Your task to perform on an android device: change the upload size in google photos Image 0: 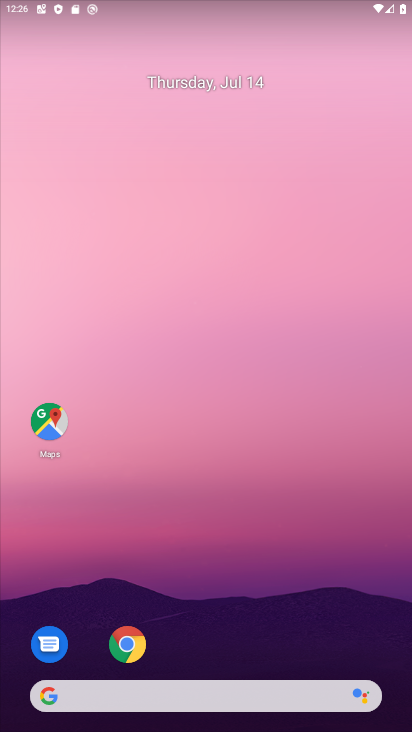
Step 0: drag from (393, 536) to (410, 390)
Your task to perform on an android device: change the upload size in google photos Image 1: 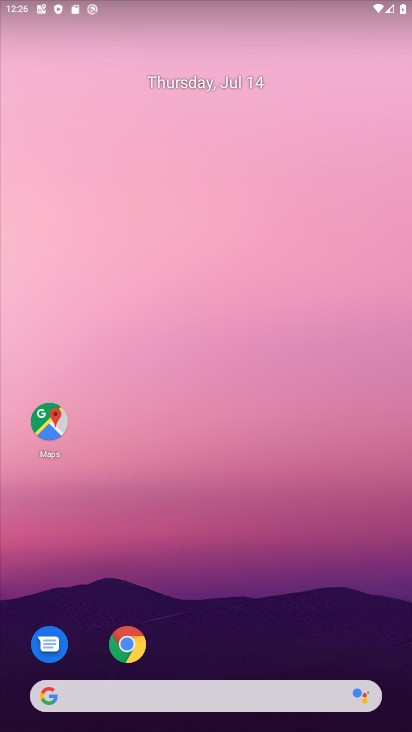
Step 1: drag from (251, 691) to (334, 0)
Your task to perform on an android device: change the upload size in google photos Image 2: 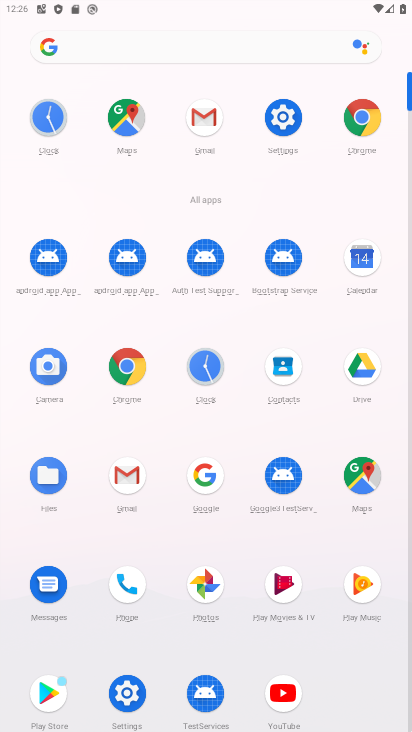
Step 2: click (198, 584)
Your task to perform on an android device: change the upload size in google photos Image 3: 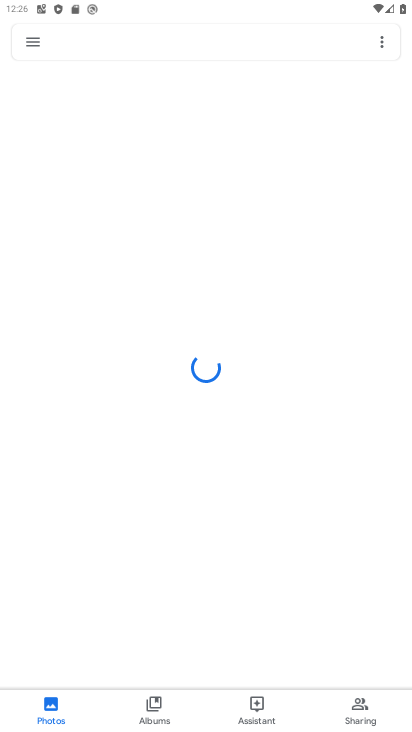
Step 3: click (22, 39)
Your task to perform on an android device: change the upload size in google photos Image 4: 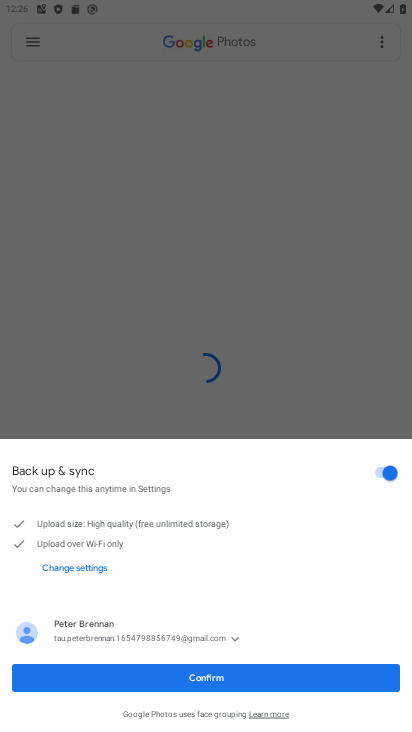
Step 4: click (119, 683)
Your task to perform on an android device: change the upload size in google photos Image 5: 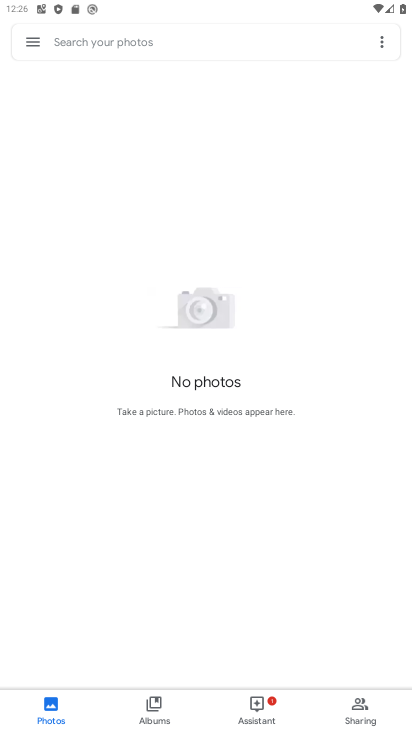
Step 5: click (25, 39)
Your task to perform on an android device: change the upload size in google photos Image 6: 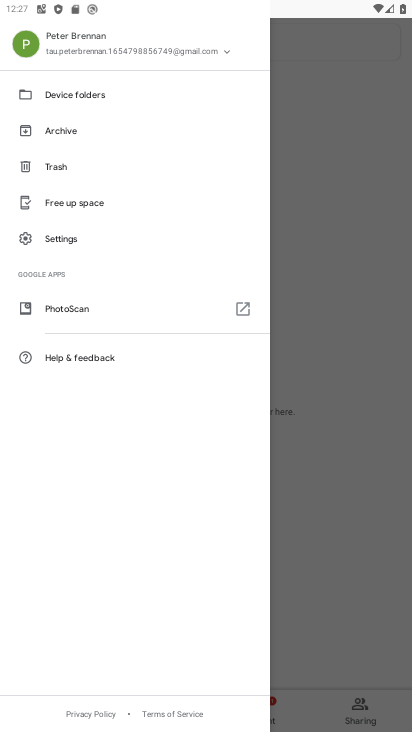
Step 6: click (70, 240)
Your task to perform on an android device: change the upload size in google photos Image 7: 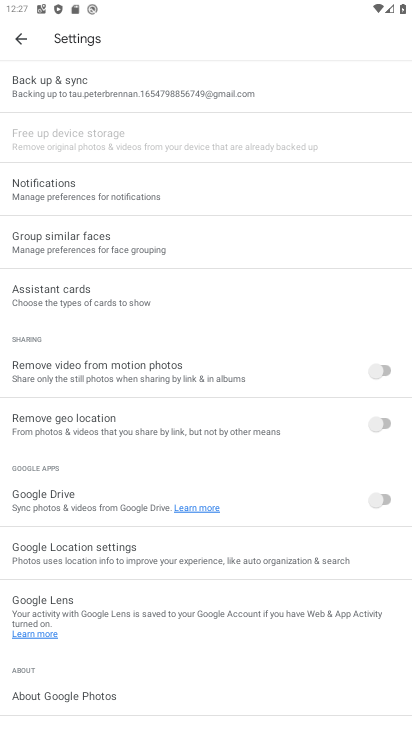
Step 7: click (61, 72)
Your task to perform on an android device: change the upload size in google photos Image 8: 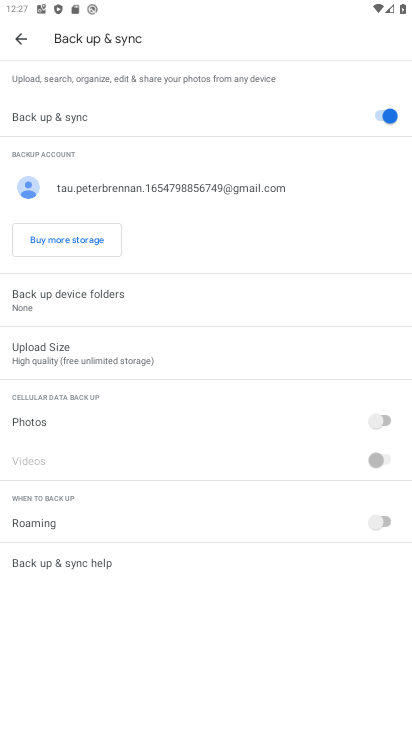
Step 8: click (80, 345)
Your task to perform on an android device: change the upload size in google photos Image 9: 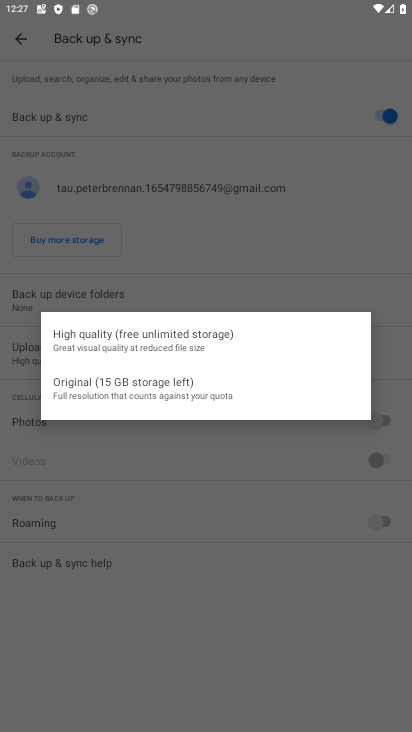
Step 9: click (96, 380)
Your task to perform on an android device: change the upload size in google photos Image 10: 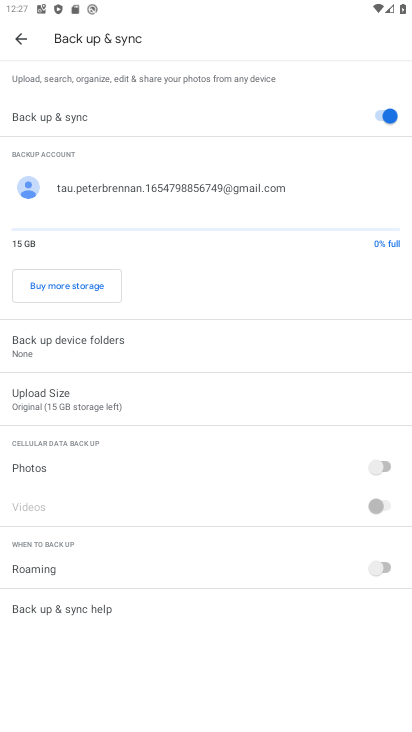
Step 10: task complete